Your task to perform on an android device: Search for pizza restaurants on Maps Image 0: 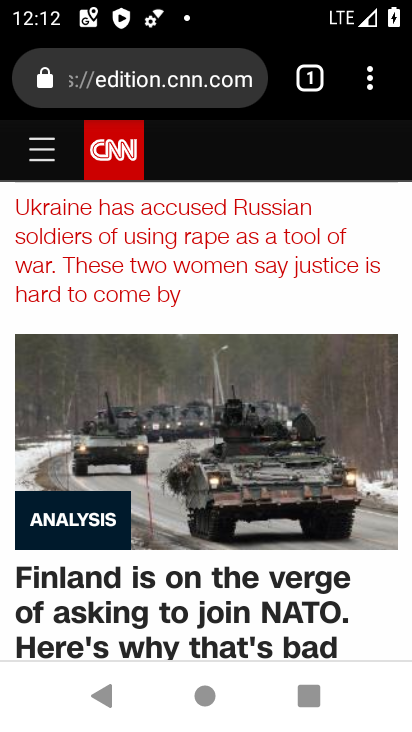
Step 0: press home button
Your task to perform on an android device: Search for pizza restaurants on Maps Image 1: 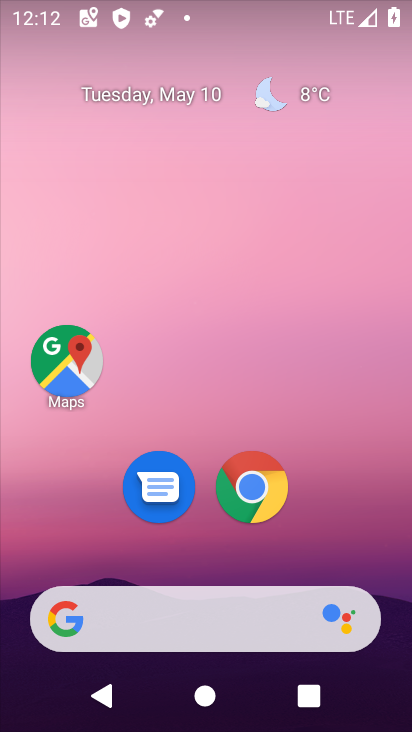
Step 1: click (69, 354)
Your task to perform on an android device: Search for pizza restaurants on Maps Image 2: 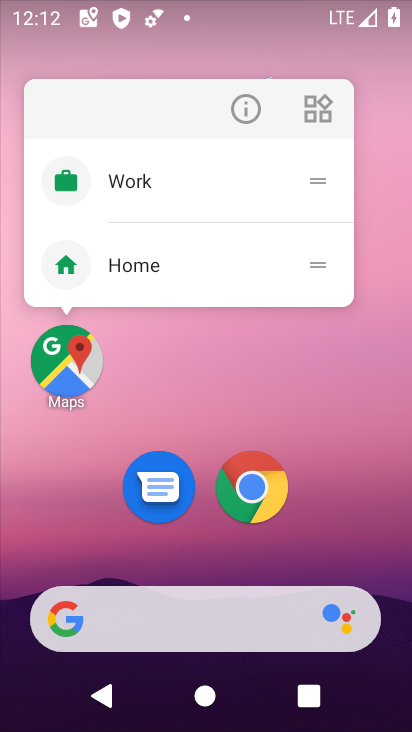
Step 2: click (67, 353)
Your task to perform on an android device: Search for pizza restaurants on Maps Image 3: 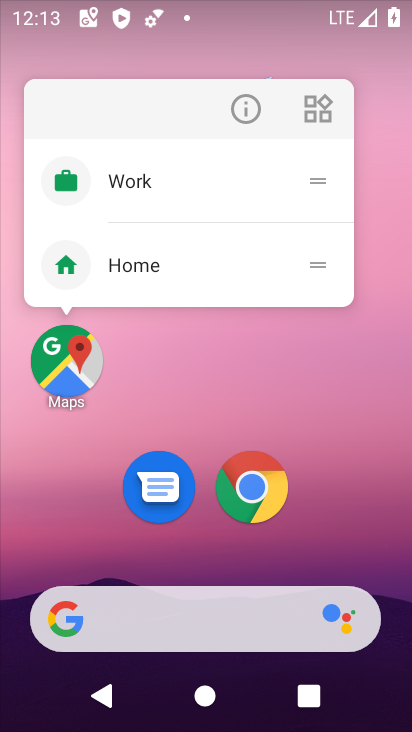
Step 3: click (65, 354)
Your task to perform on an android device: Search for pizza restaurants on Maps Image 4: 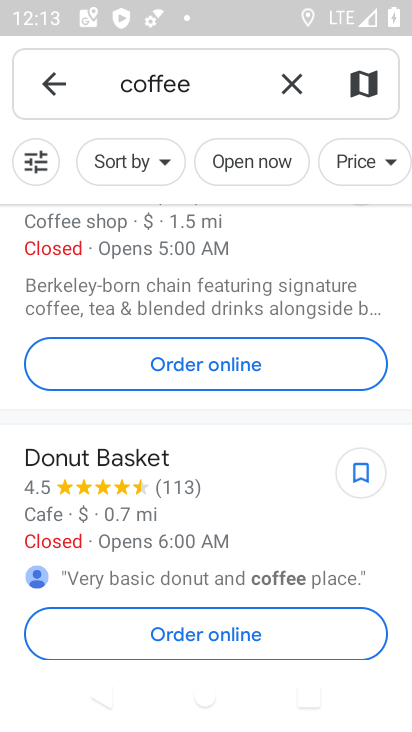
Step 4: click (293, 76)
Your task to perform on an android device: Search for pizza restaurants on Maps Image 5: 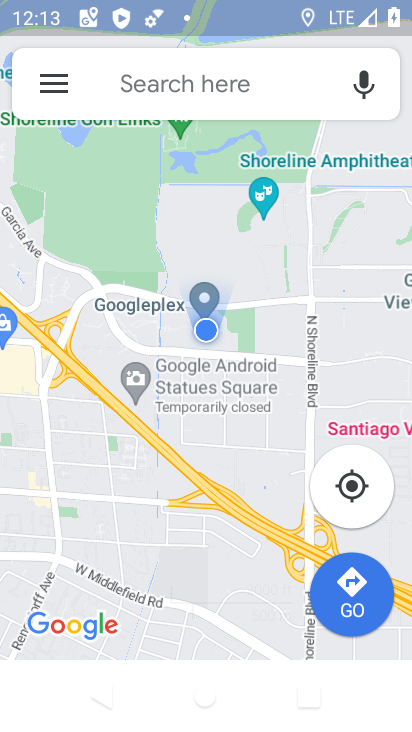
Step 5: click (146, 70)
Your task to perform on an android device: Search for pizza restaurants on Maps Image 6: 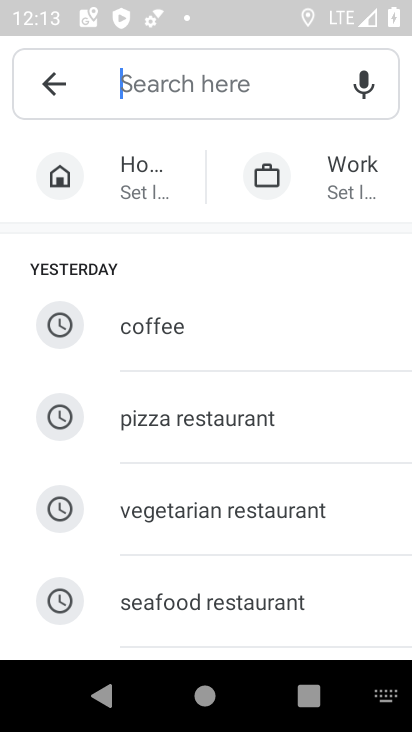
Step 6: type "pizza"
Your task to perform on an android device: Search for pizza restaurants on Maps Image 7: 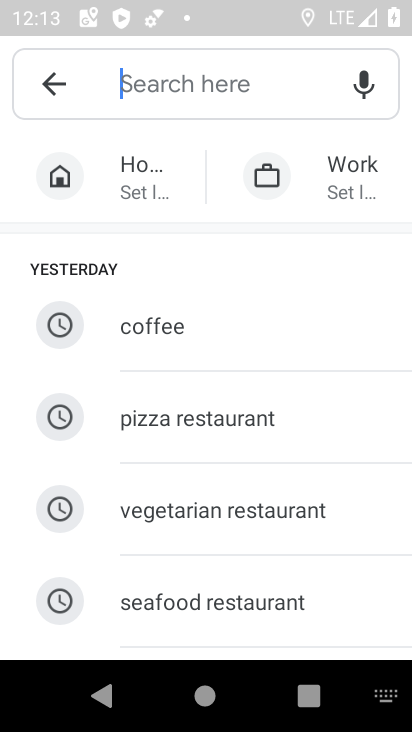
Step 7: click (213, 440)
Your task to perform on an android device: Search for pizza restaurants on Maps Image 8: 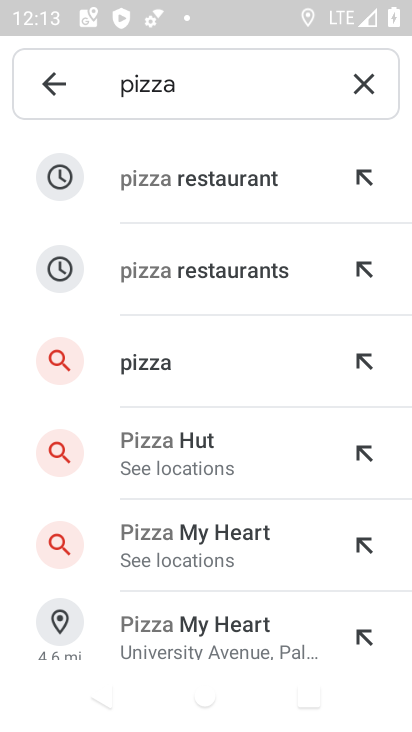
Step 8: click (232, 192)
Your task to perform on an android device: Search for pizza restaurants on Maps Image 9: 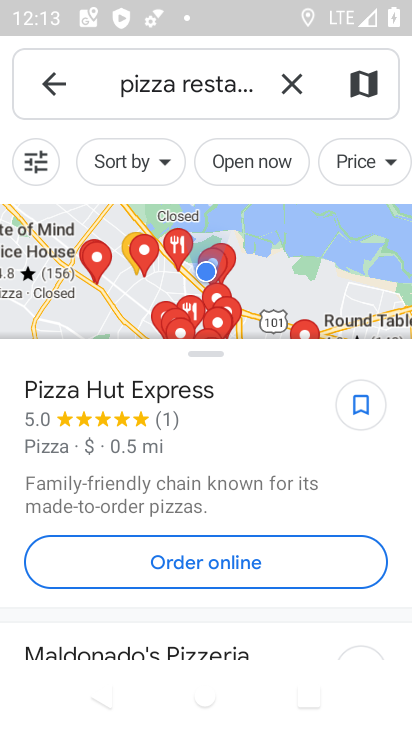
Step 9: task complete